Your task to perform on an android device: turn pop-ups on in chrome Image 0: 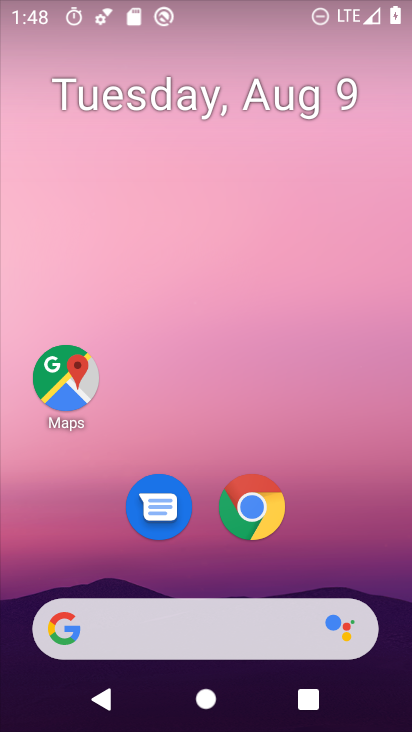
Step 0: drag from (294, 392) to (289, 95)
Your task to perform on an android device: turn pop-ups on in chrome Image 1: 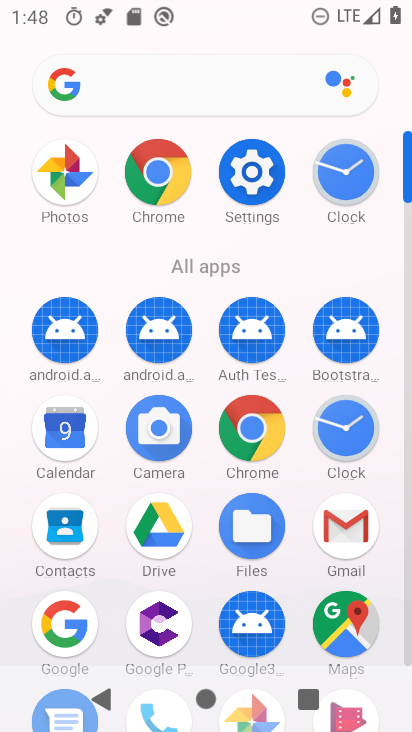
Step 1: click (152, 178)
Your task to perform on an android device: turn pop-ups on in chrome Image 2: 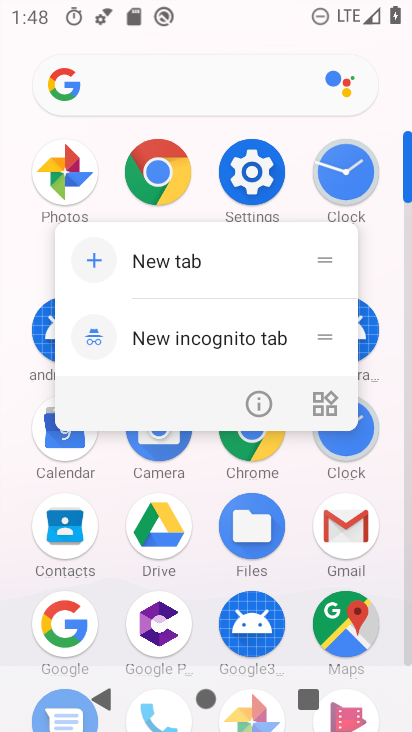
Step 2: press home button
Your task to perform on an android device: turn pop-ups on in chrome Image 3: 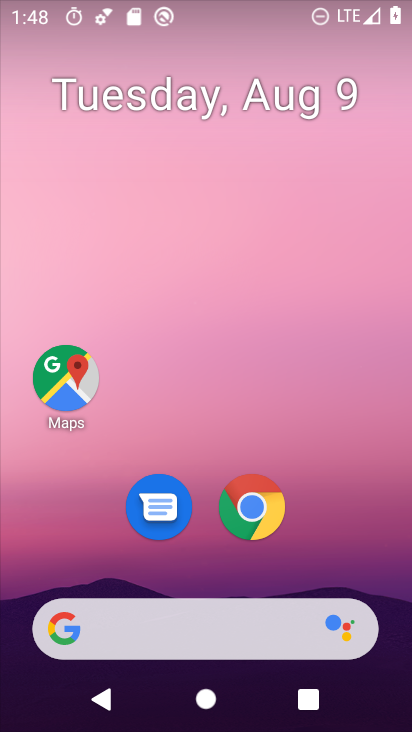
Step 3: click (283, 531)
Your task to perform on an android device: turn pop-ups on in chrome Image 4: 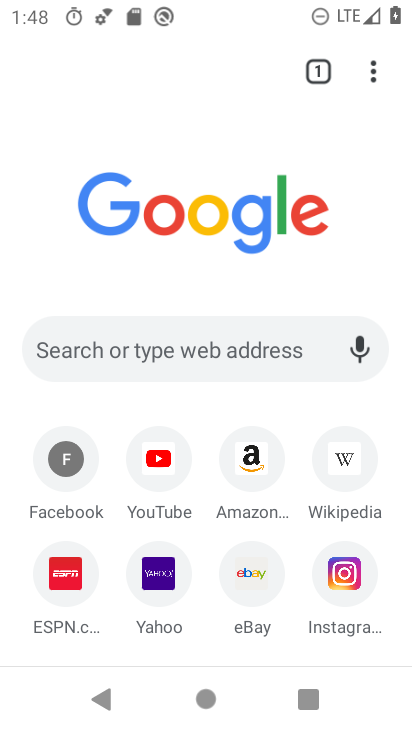
Step 4: click (385, 71)
Your task to perform on an android device: turn pop-ups on in chrome Image 5: 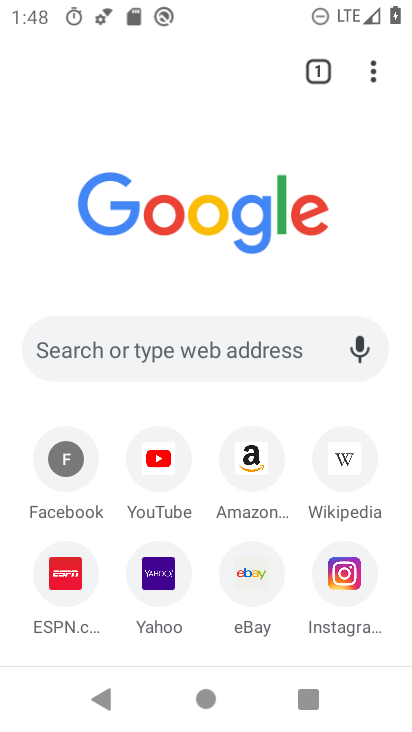
Step 5: click (388, 79)
Your task to perform on an android device: turn pop-ups on in chrome Image 6: 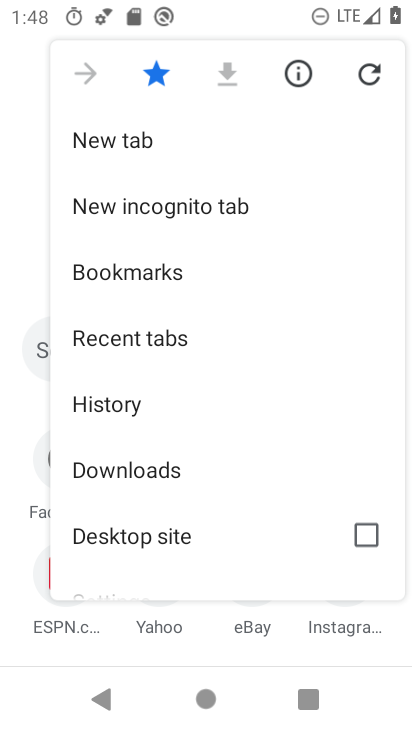
Step 6: task complete